Your task to perform on an android device: clear all cookies in the chrome app Image 0: 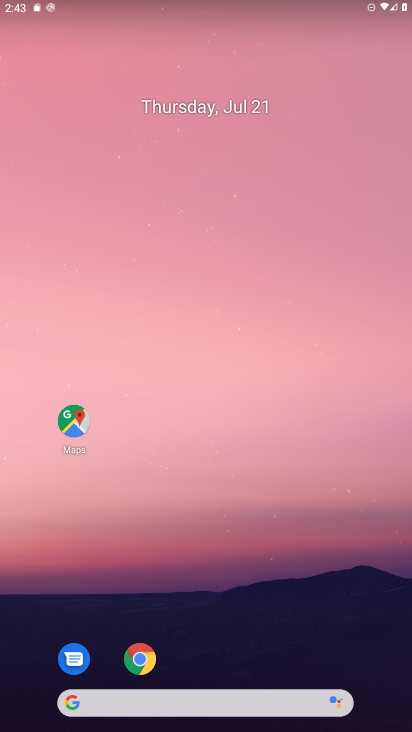
Step 0: press home button
Your task to perform on an android device: clear all cookies in the chrome app Image 1: 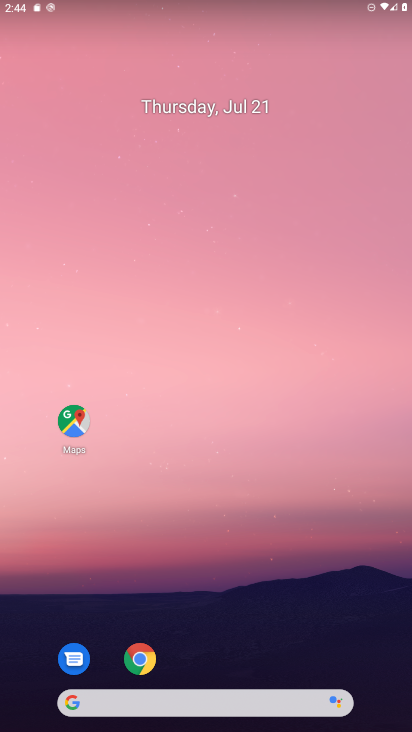
Step 1: click (132, 659)
Your task to perform on an android device: clear all cookies in the chrome app Image 2: 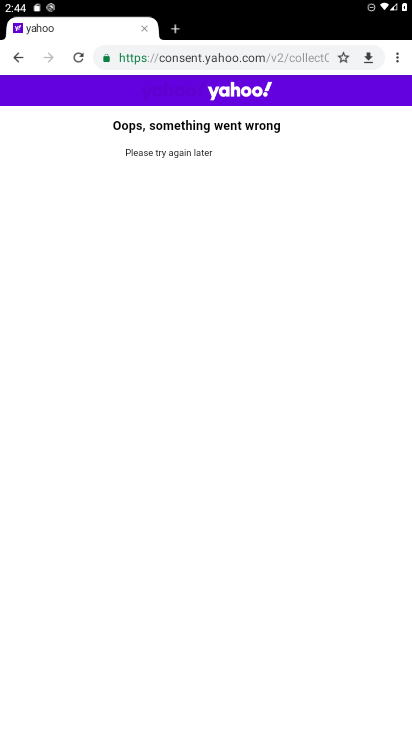
Step 2: task complete